Your task to perform on an android device: Check the weather Image 0: 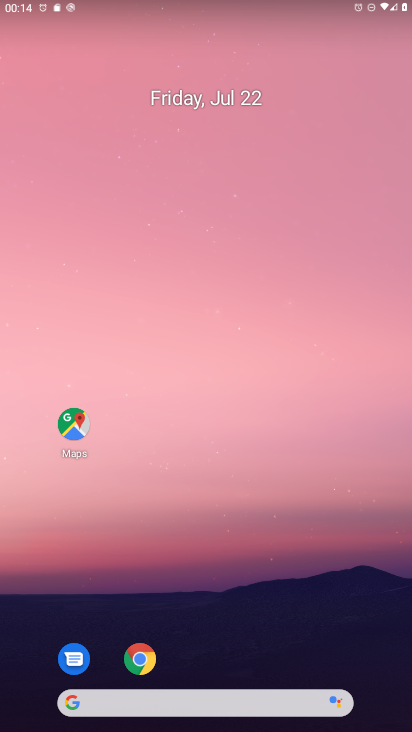
Step 0: drag from (209, 698) to (234, 210)
Your task to perform on an android device: Check the weather Image 1: 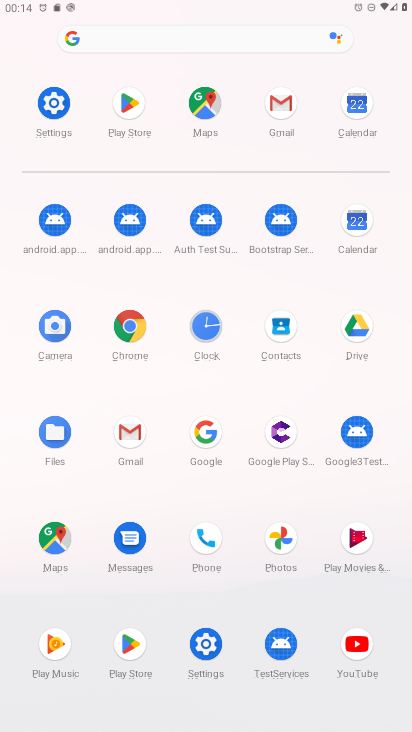
Step 1: click (203, 430)
Your task to perform on an android device: Check the weather Image 2: 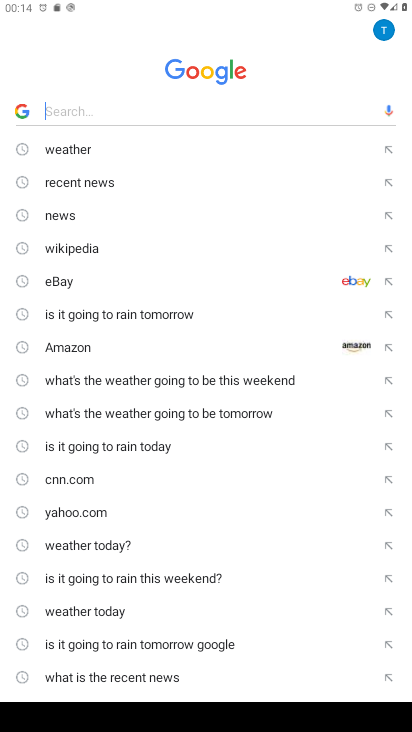
Step 2: click (70, 149)
Your task to perform on an android device: Check the weather Image 3: 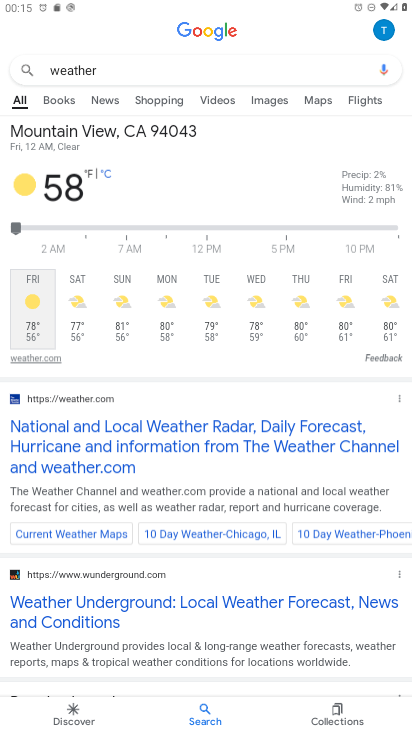
Step 3: task complete